Your task to perform on an android device: turn on data saver in the chrome app Image 0: 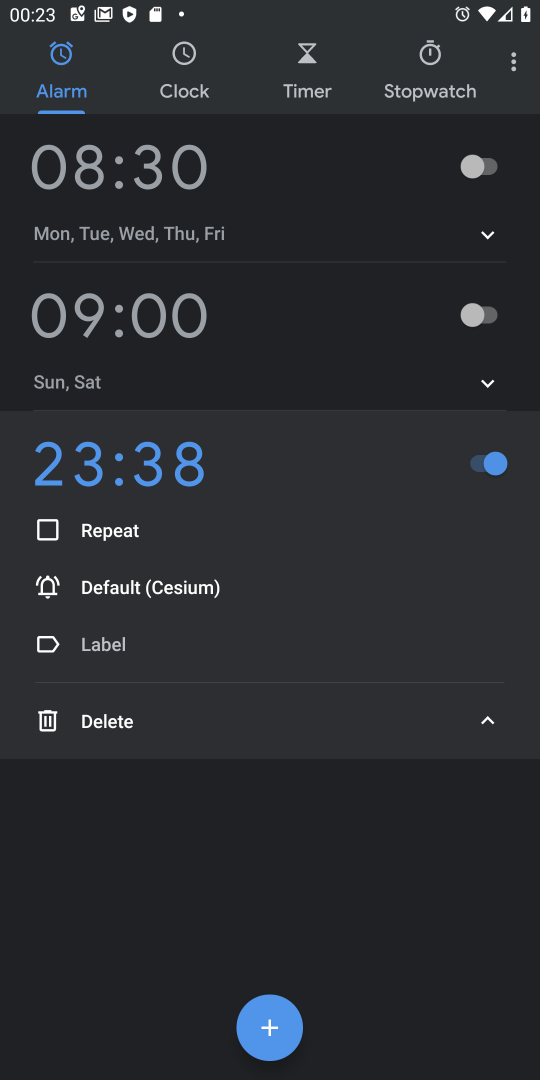
Step 0: press home button
Your task to perform on an android device: turn on data saver in the chrome app Image 1: 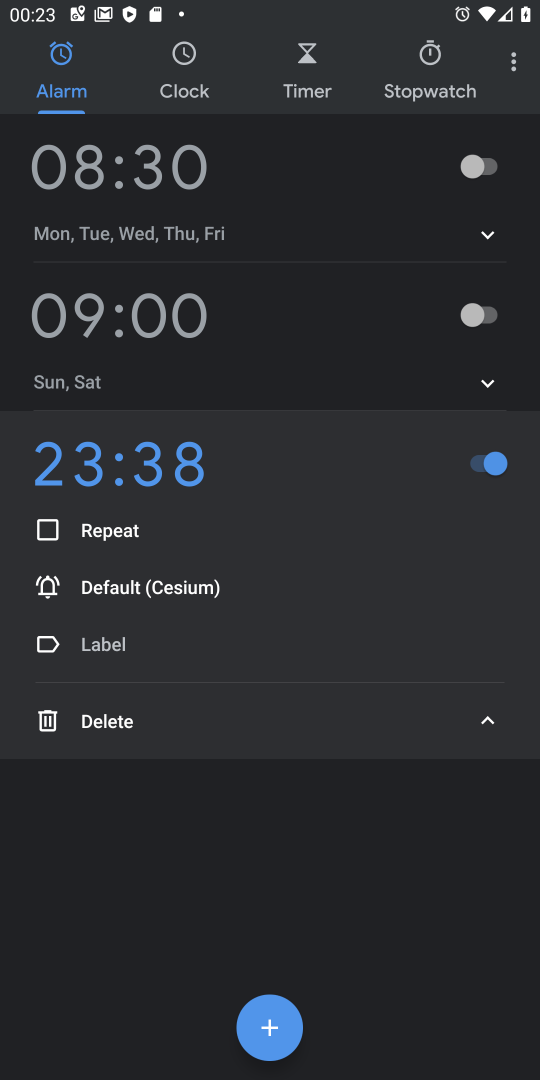
Step 1: press home button
Your task to perform on an android device: turn on data saver in the chrome app Image 2: 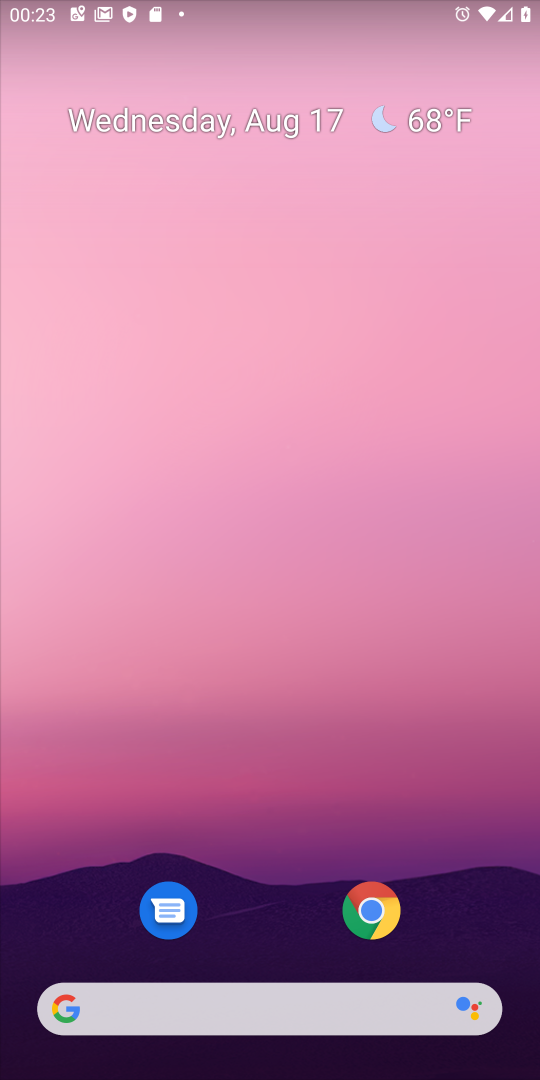
Step 2: drag from (268, 905) to (303, 22)
Your task to perform on an android device: turn on data saver in the chrome app Image 3: 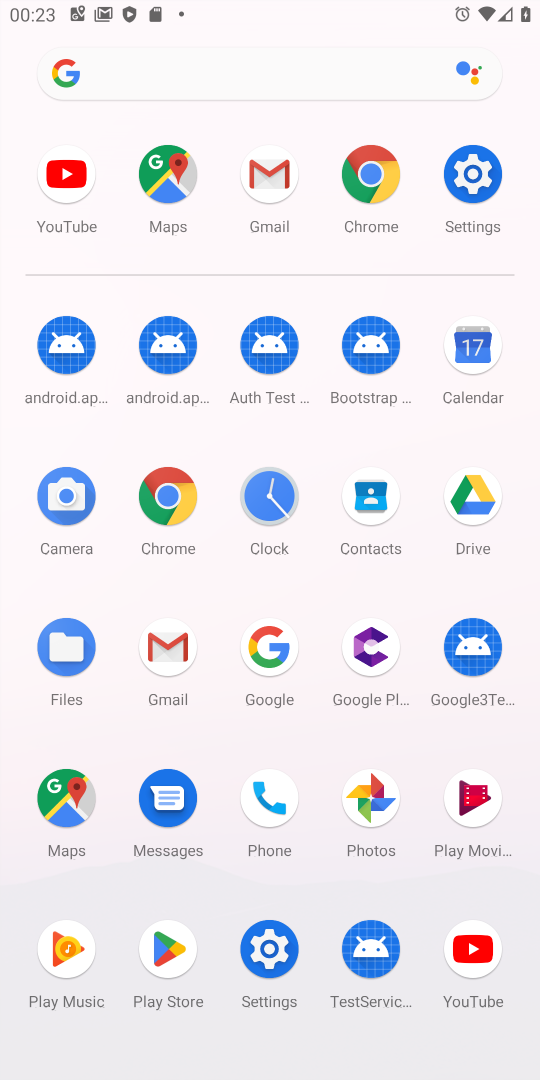
Step 3: click (168, 497)
Your task to perform on an android device: turn on data saver in the chrome app Image 4: 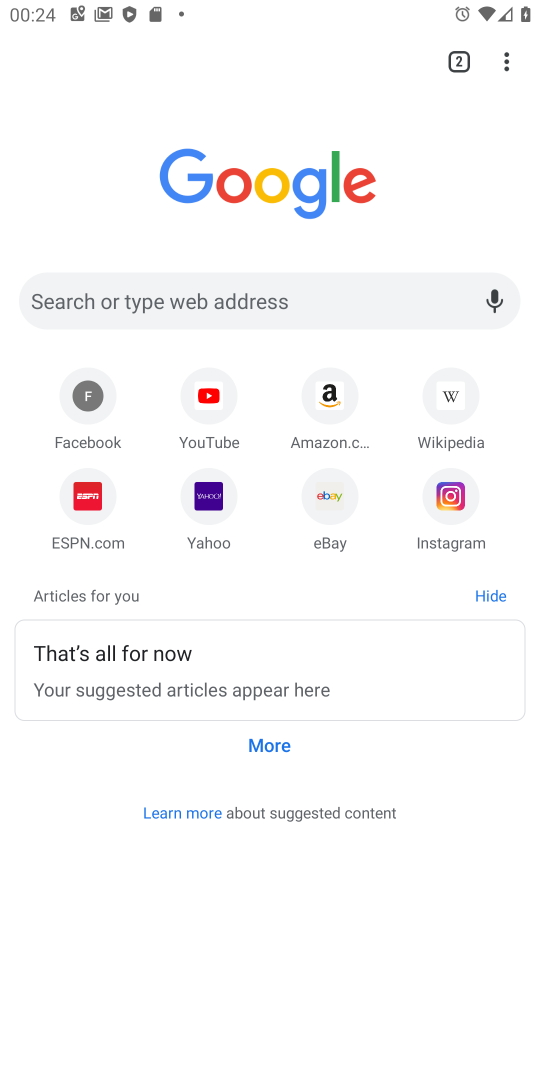
Step 4: drag from (505, 54) to (301, 594)
Your task to perform on an android device: turn on data saver in the chrome app Image 5: 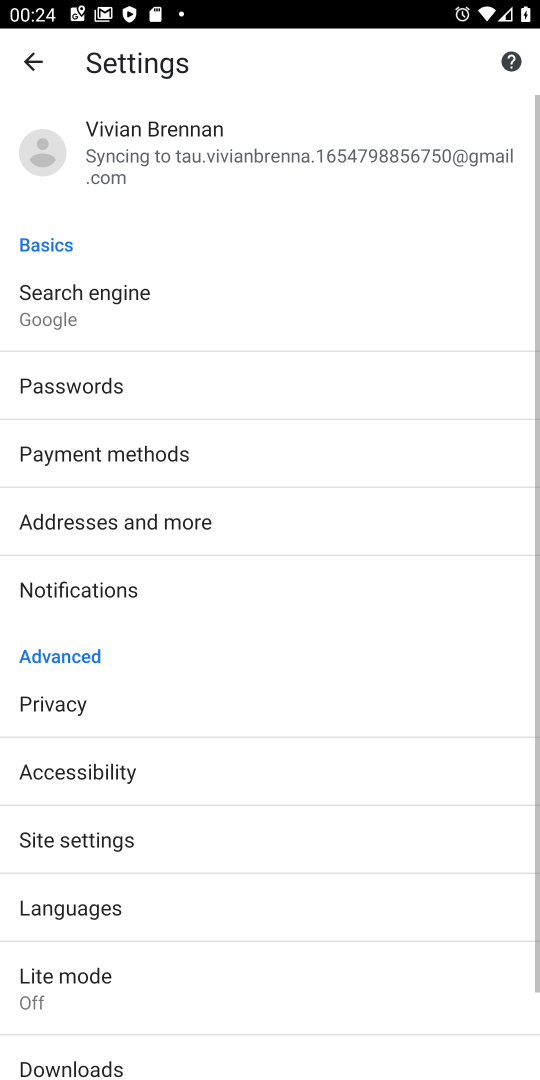
Step 5: drag from (254, 975) to (280, 81)
Your task to perform on an android device: turn on data saver in the chrome app Image 6: 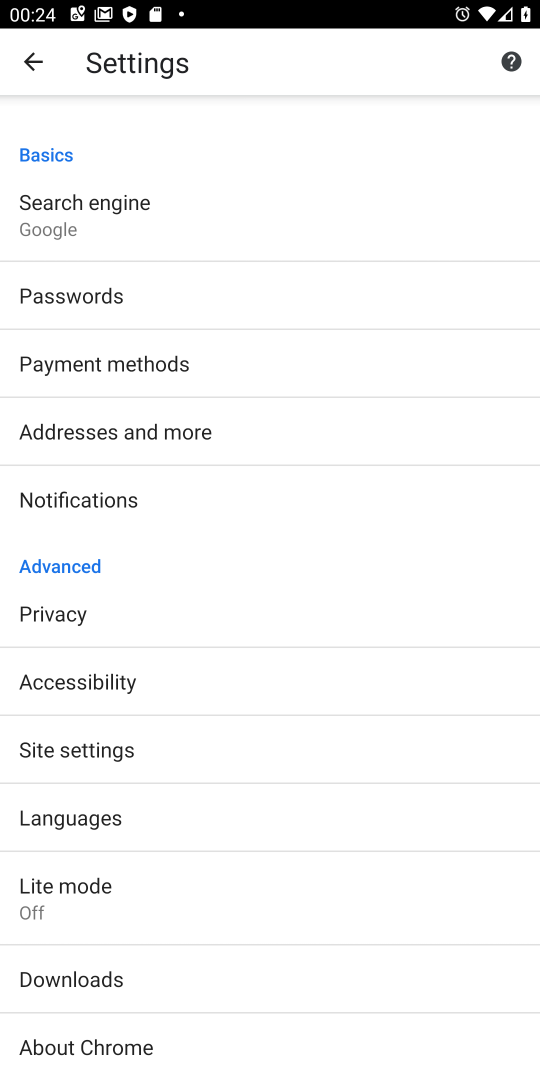
Step 6: click (99, 899)
Your task to perform on an android device: turn on data saver in the chrome app Image 7: 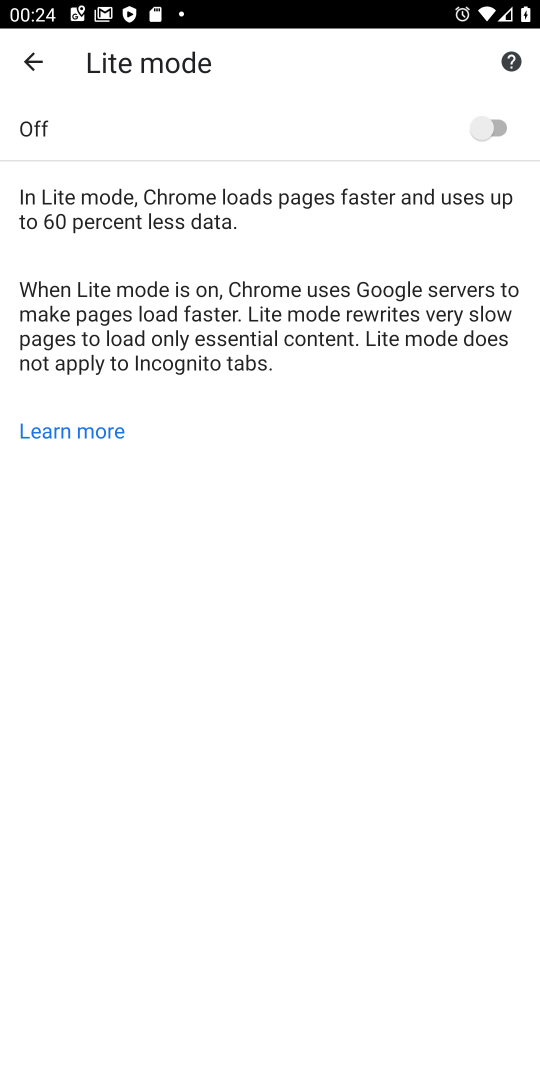
Step 7: click (465, 134)
Your task to perform on an android device: turn on data saver in the chrome app Image 8: 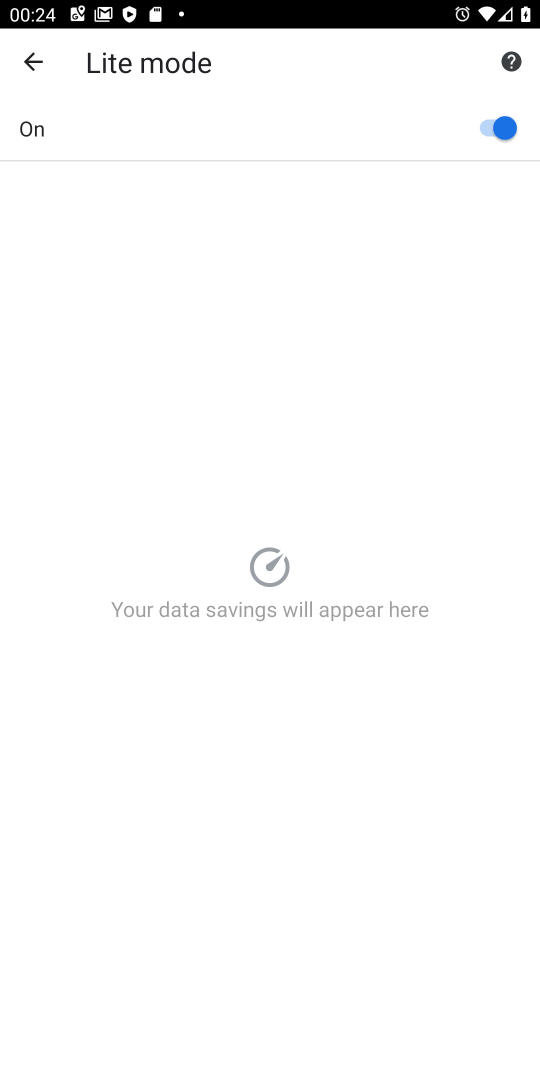
Step 8: task complete